Your task to perform on an android device: Is it going to rain this weekend? Image 0: 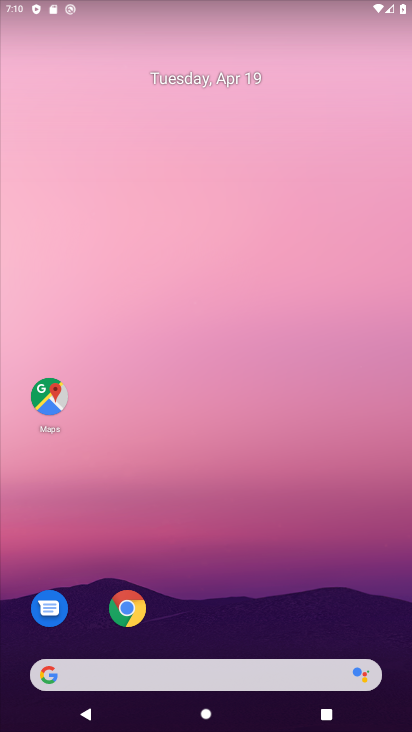
Step 0: drag from (298, 620) to (340, 132)
Your task to perform on an android device: Is it going to rain this weekend? Image 1: 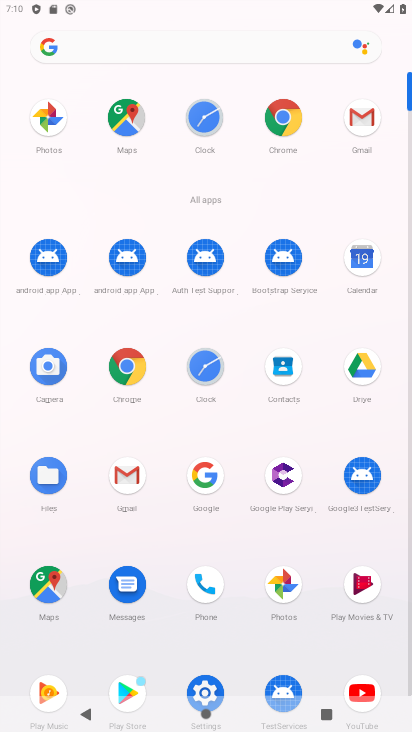
Step 1: click (130, 355)
Your task to perform on an android device: Is it going to rain this weekend? Image 2: 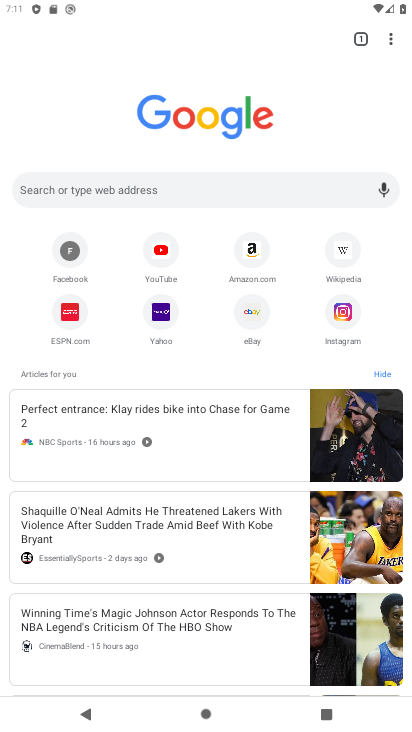
Step 2: click (268, 189)
Your task to perform on an android device: Is it going to rain this weekend? Image 3: 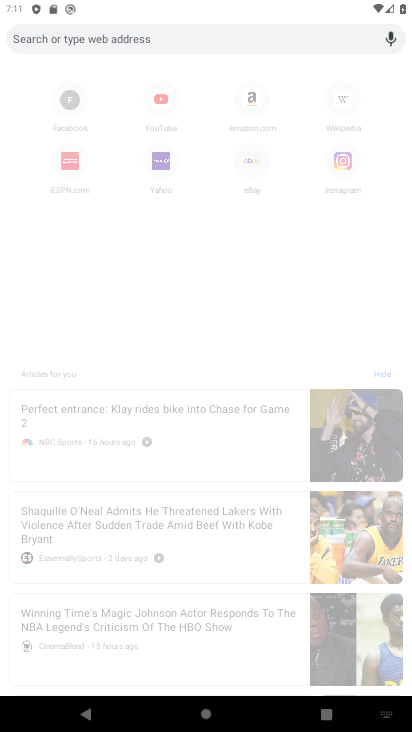
Step 3: type "Is it going to rain this weekend?"
Your task to perform on an android device: Is it going to rain this weekend? Image 4: 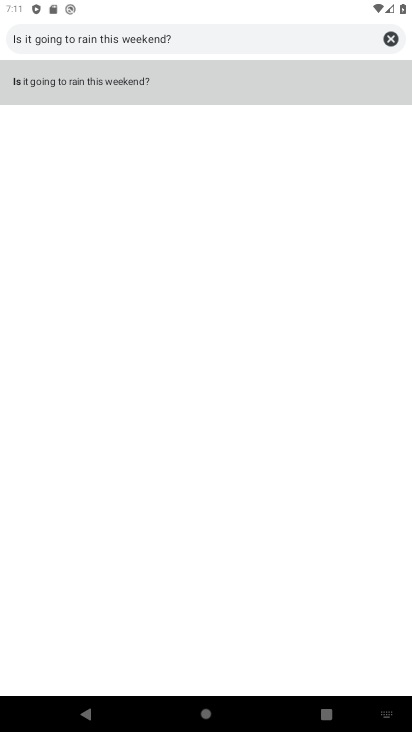
Step 4: click (80, 84)
Your task to perform on an android device: Is it going to rain this weekend? Image 5: 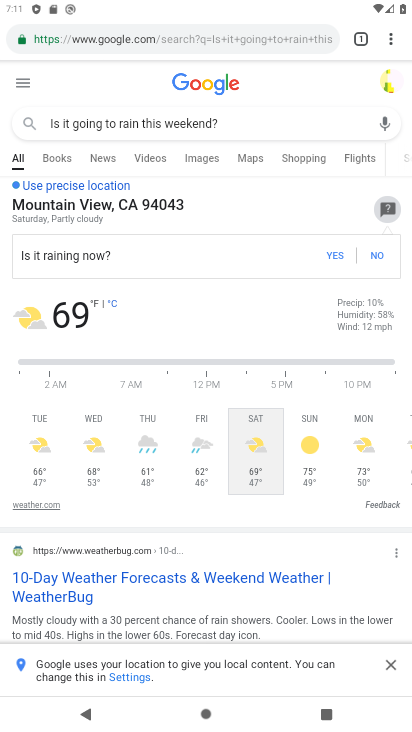
Step 5: task complete